Your task to perform on an android device: Do I have any events this weekend? Image 0: 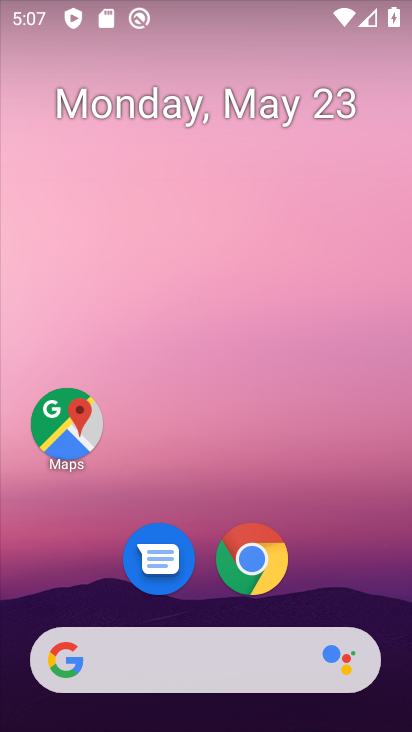
Step 0: drag from (254, 661) to (401, 468)
Your task to perform on an android device: Do I have any events this weekend? Image 1: 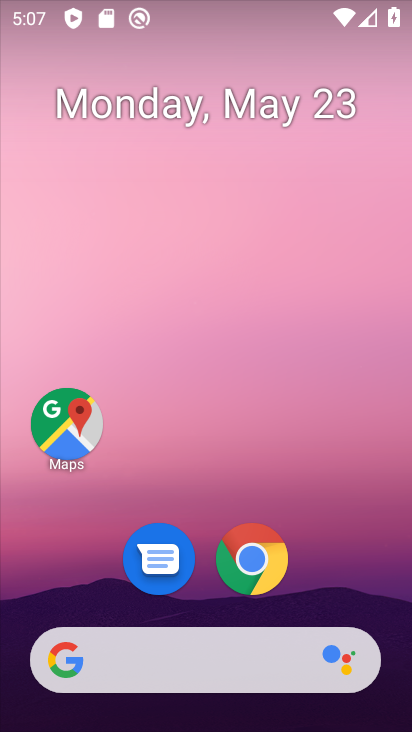
Step 1: click (79, 389)
Your task to perform on an android device: Do I have any events this weekend? Image 2: 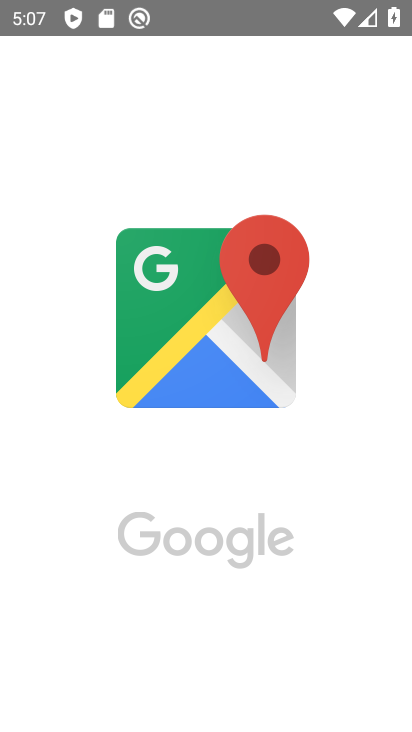
Step 2: drag from (219, 630) to (289, 149)
Your task to perform on an android device: Do I have any events this weekend? Image 3: 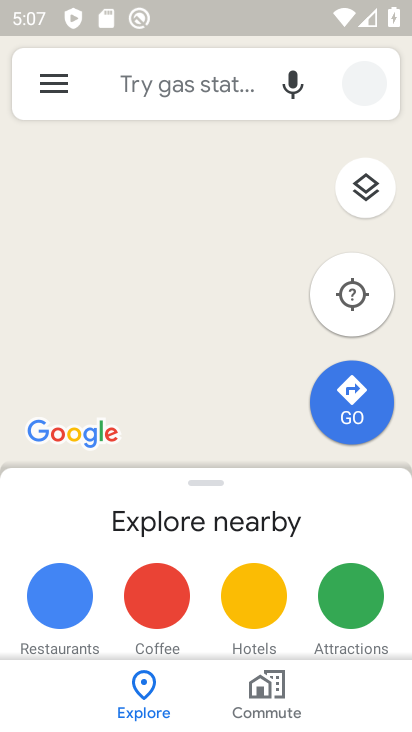
Step 3: press home button
Your task to perform on an android device: Do I have any events this weekend? Image 4: 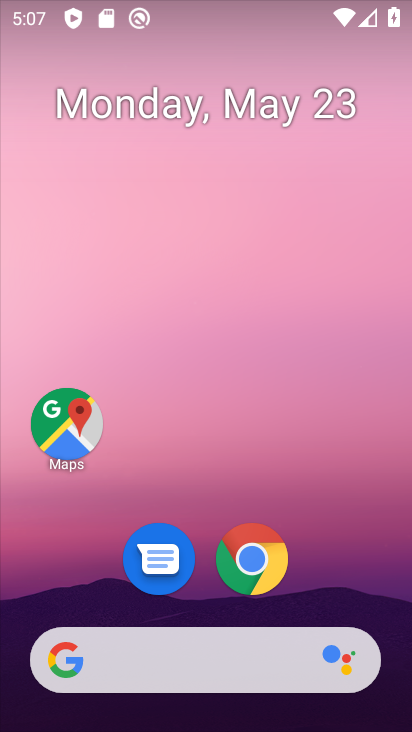
Step 4: drag from (236, 583) to (239, 35)
Your task to perform on an android device: Do I have any events this weekend? Image 5: 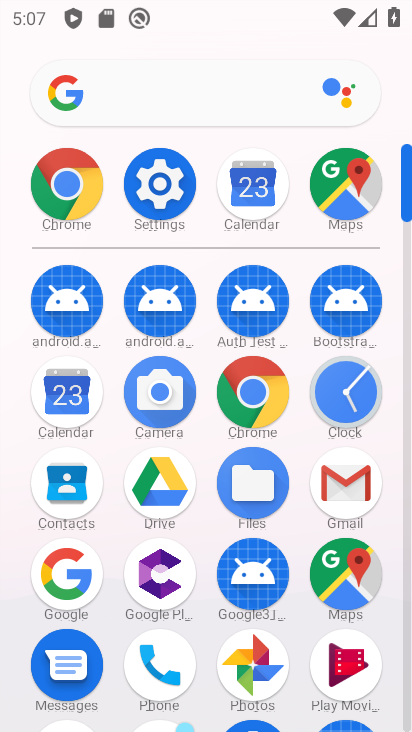
Step 5: click (54, 377)
Your task to perform on an android device: Do I have any events this weekend? Image 6: 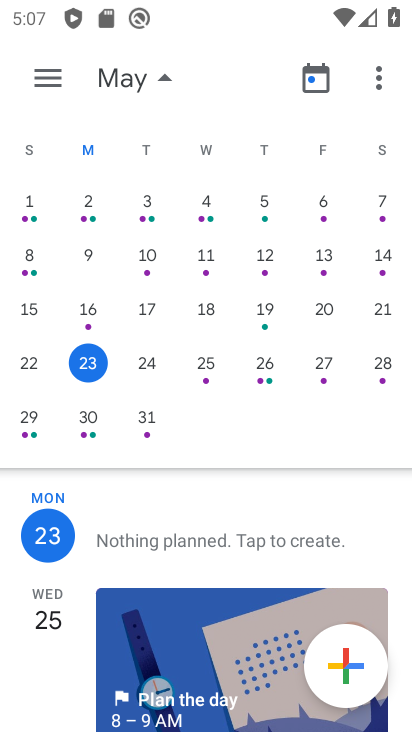
Step 6: click (376, 365)
Your task to perform on an android device: Do I have any events this weekend? Image 7: 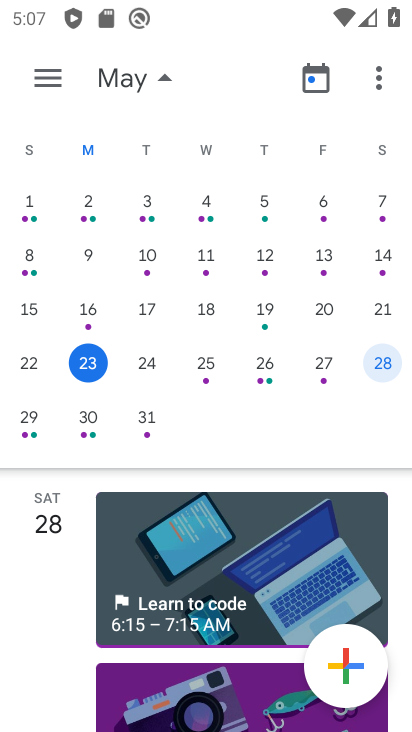
Step 7: task complete